Your task to perform on an android device: Open notification settings Image 0: 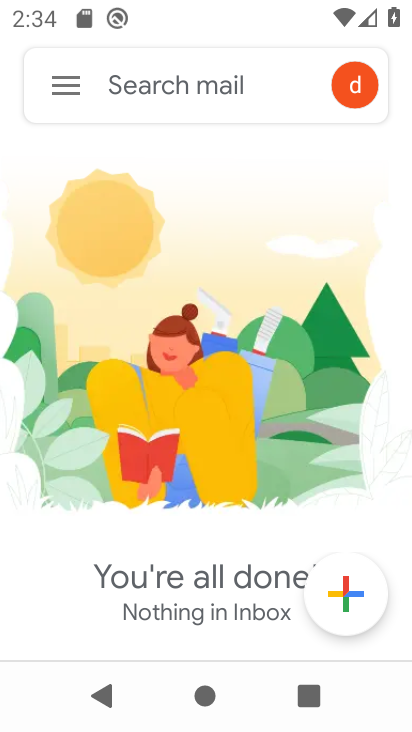
Step 0: press home button
Your task to perform on an android device: Open notification settings Image 1: 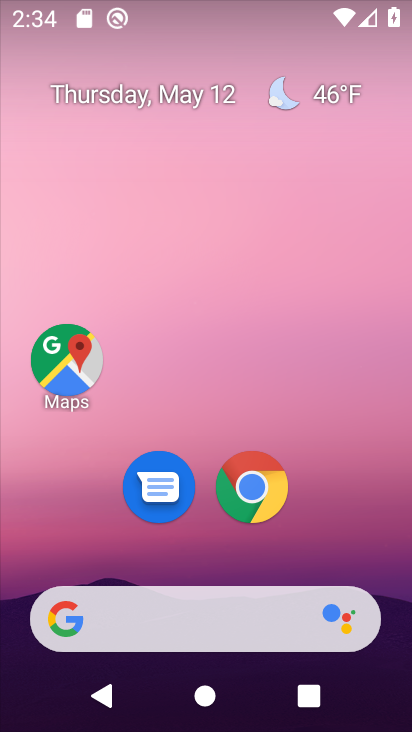
Step 1: drag from (210, 556) to (260, 76)
Your task to perform on an android device: Open notification settings Image 2: 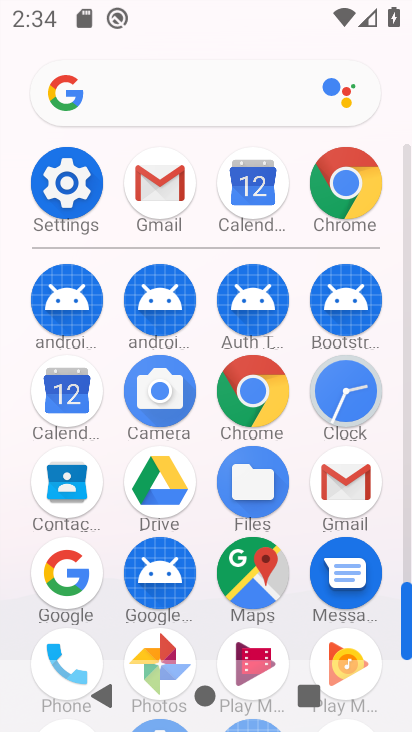
Step 2: click (48, 200)
Your task to perform on an android device: Open notification settings Image 3: 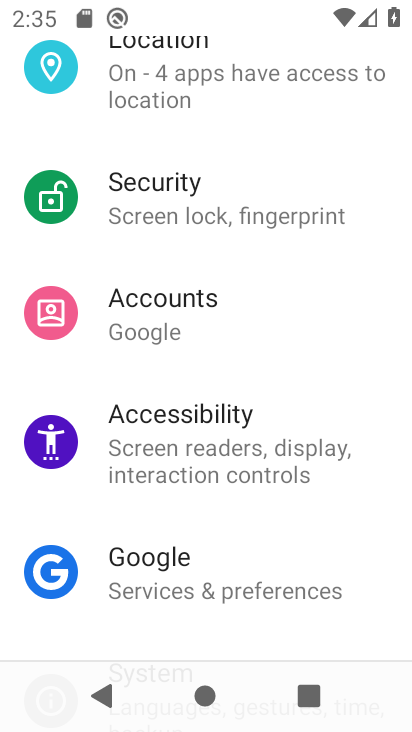
Step 3: drag from (222, 217) to (218, 528)
Your task to perform on an android device: Open notification settings Image 4: 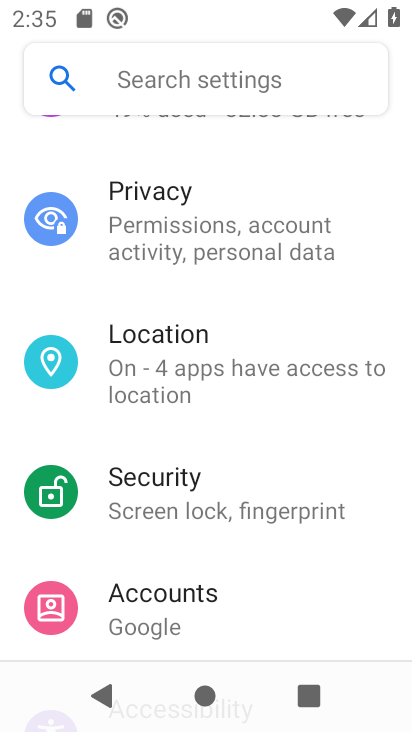
Step 4: drag from (258, 285) to (147, 476)
Your task to perform on an android device: Open notification settings Image 5: 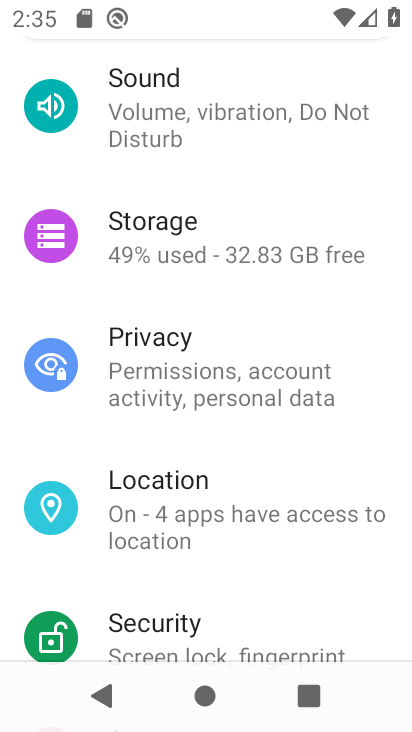
Step 5: drag from (140, 269) to (156, 501)
Your task to perform on an android device: Open notification settings Image 6: 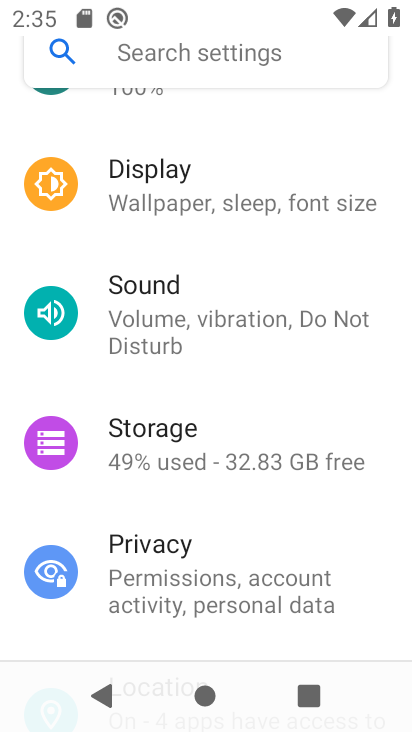
Step 6: drag from (201, 224) to (180, 483)
Your task to perform on an android device: Open notification settings Image 7: 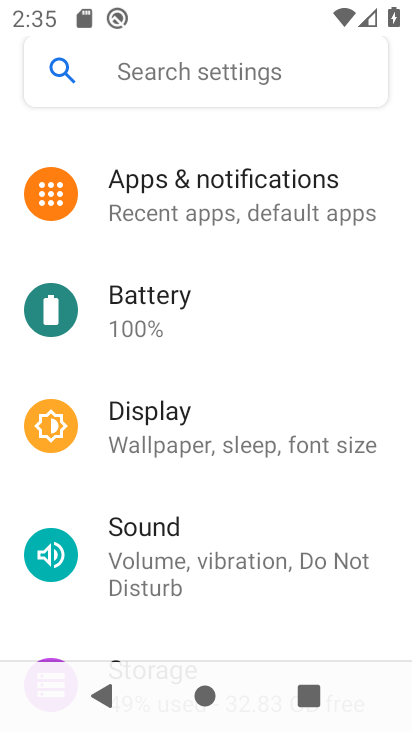
Step 7: click (219, 207)
Your task to perform on an android device: Open notification settings Image 8: 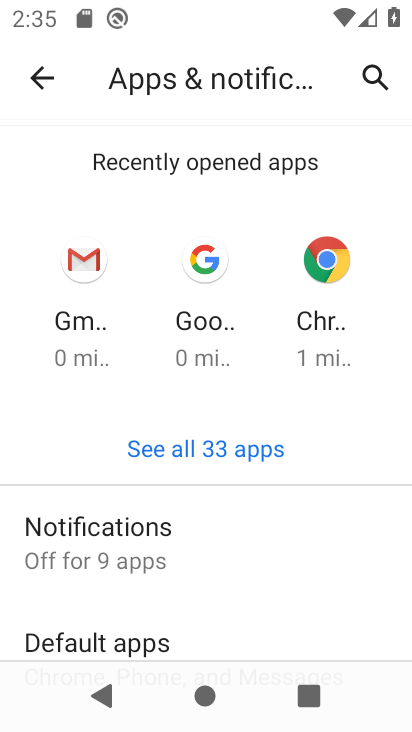
Step 8: click (147, 563)
Your task to perform on an android device: Open notification settings Image 9: 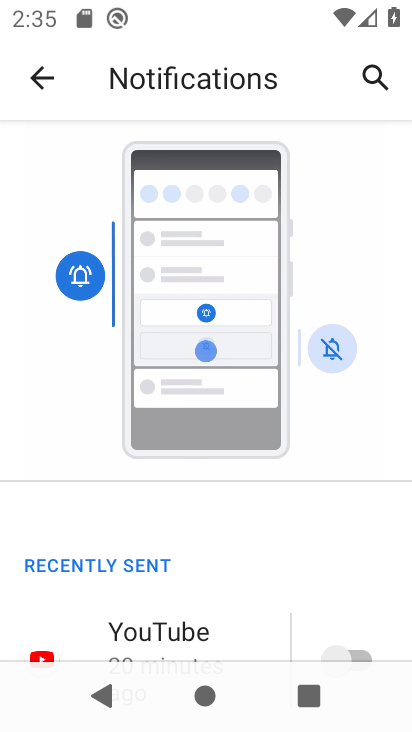
Step 9: task complete